Your task to perform on an android device: Go to settings Image 0: 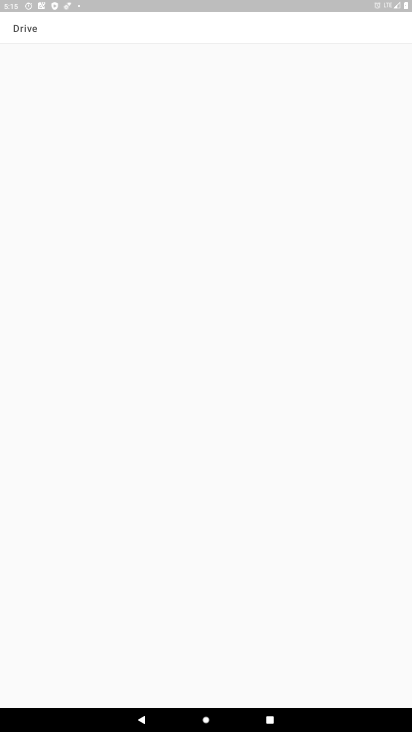
Step 0: press home button
Your task to perform on an android device: Go to settings Image 1: 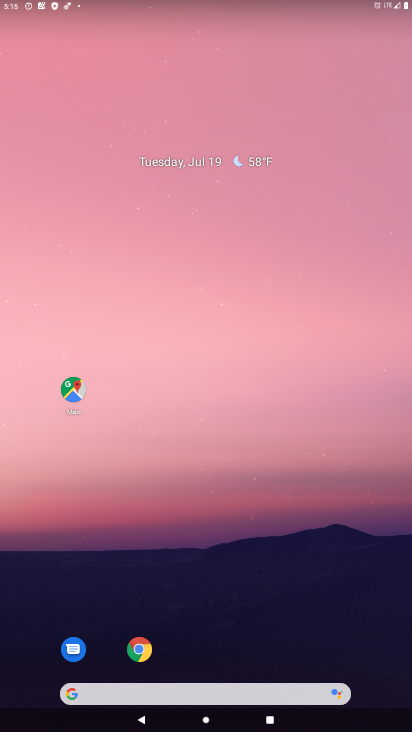
Step 1: click (408, 566)
Your task to perform on an android device: Go to settings Image 2: 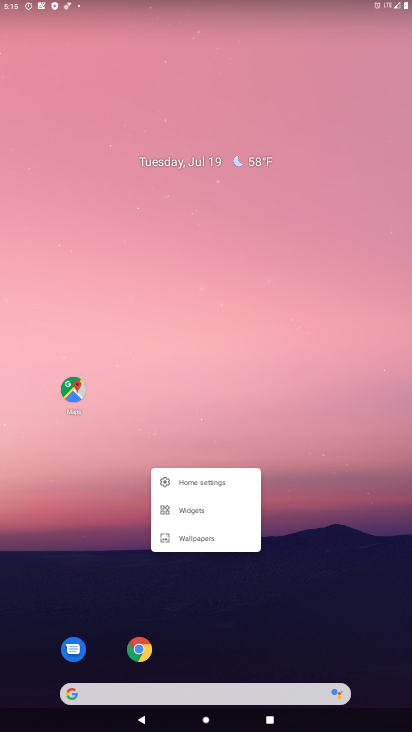
Step 2: press home button
Your task to perform on an android device: Go to settings Image 3: 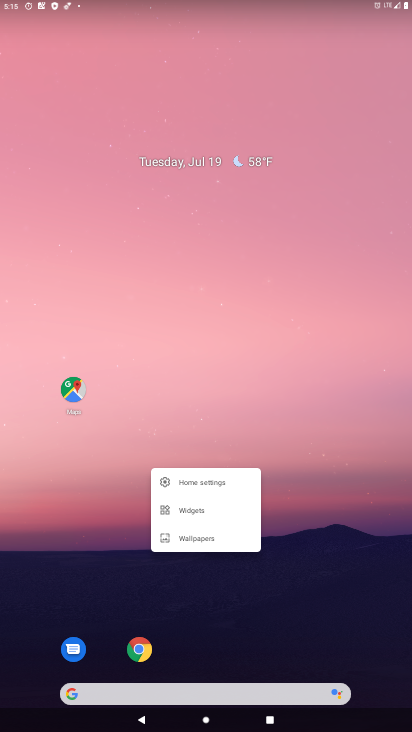
Step 3: click (393, 481)
Your task to perform on an android device: Go to settings Image 4: 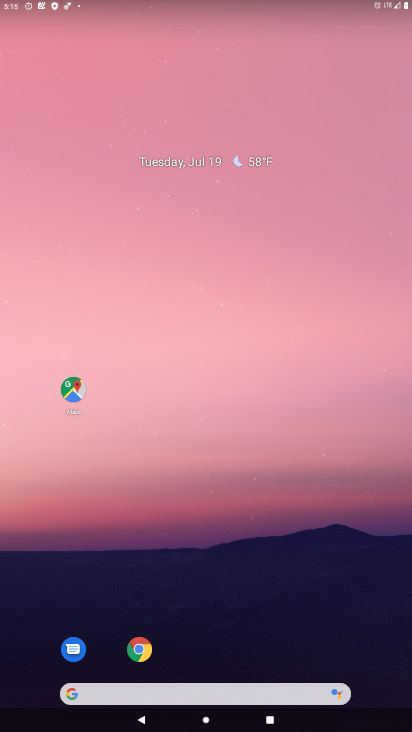
Step 4: click (222, 627)
Your task to perform on an android device: Go to settings Image 5: 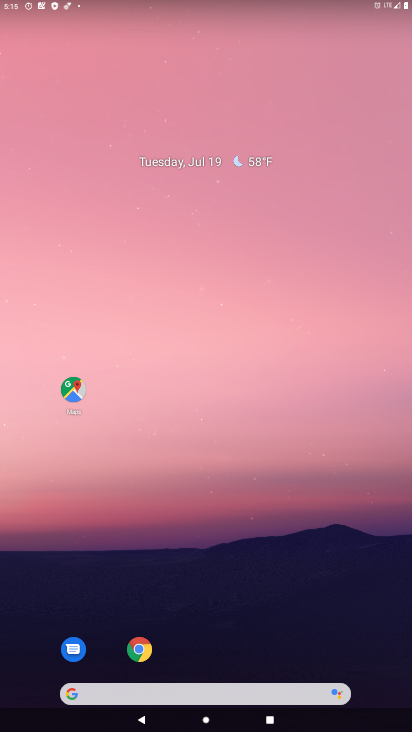
Step 5: drag from (222, 627) to (211, 238)
Your task to perform on an android device: Go to settings Image 6: 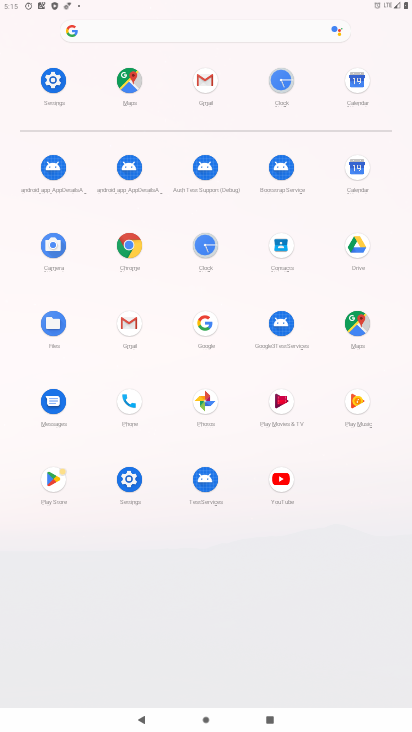
Step 6: click (52, 87)
Your task to perform on an android device: Go to settings Image 7: 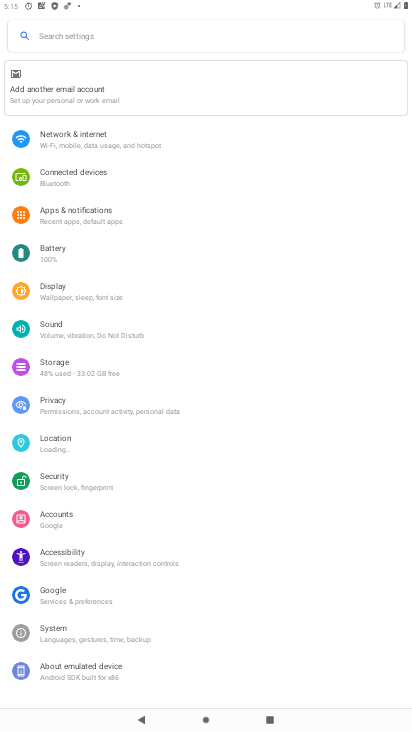
Step 7: task complete